Your task to perform on an android device: turn notification dots on Image 0: 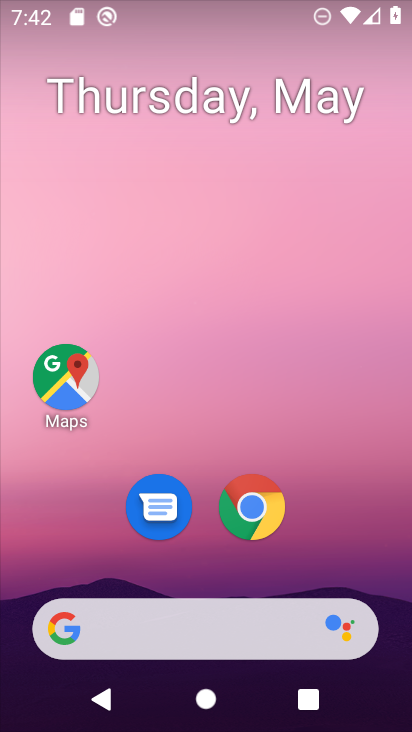
Step 0: drag from (351, 533) to (317, 104)
Your task to perform on an android device: turn notification dots on Image 1: 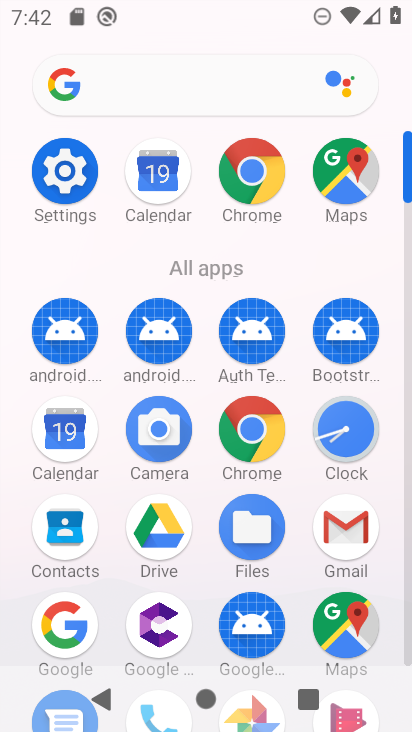
Step 1: click (69, 160)
Your task to perform on an android device: turn notification dots on Image 2: 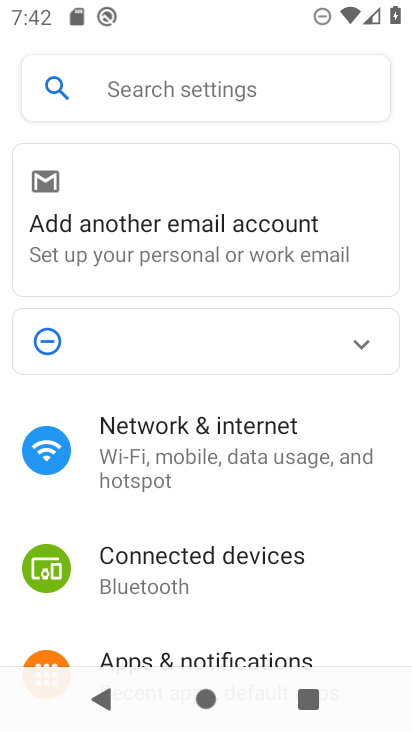
Step 2: drag from (255, 587) to (233, 361)
Your task to perform on an android device: turn notification dots on Image 3: 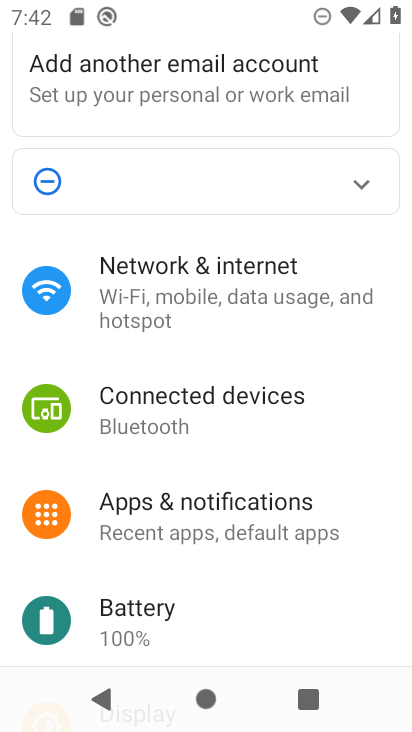
Step 3: click (259, 527)
Your task to perform on an android device: turn notification dots on Image 4: 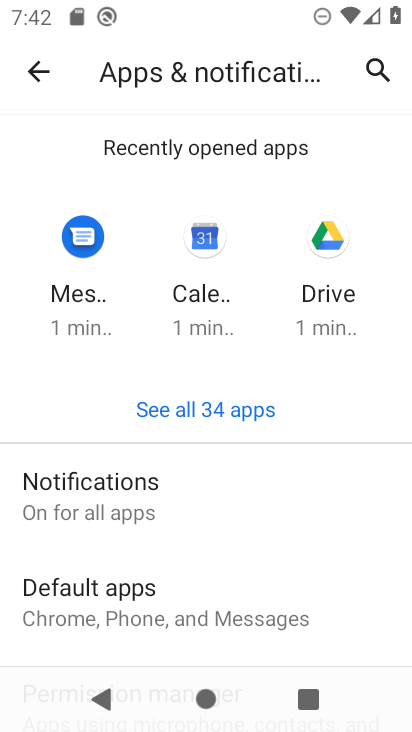
Step 4: click (80, 474)
Your task to perform on an android device: turn notification dots on Image 5: 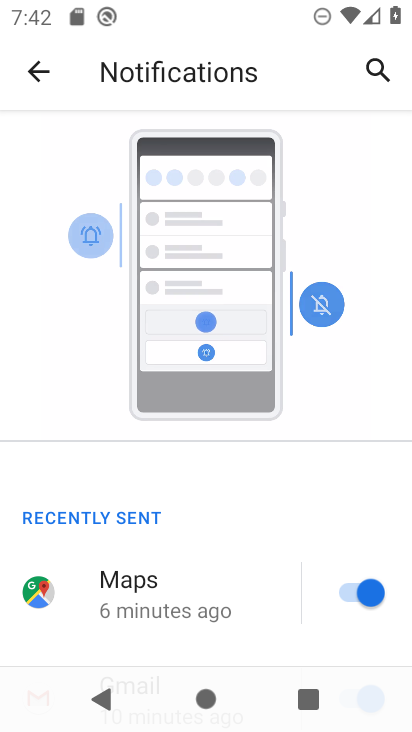
Step 5: drag from (158, 612) to (168, 211)
Your task to perform on an android device: turn notification dots on Image 6: 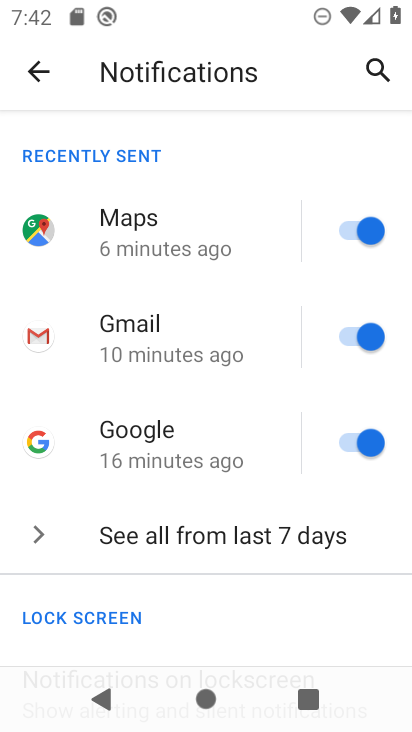
Step 6: drag from (225, 577) to (233, 285)
Your task to perform on an android device: turn notification dots on Image 7: 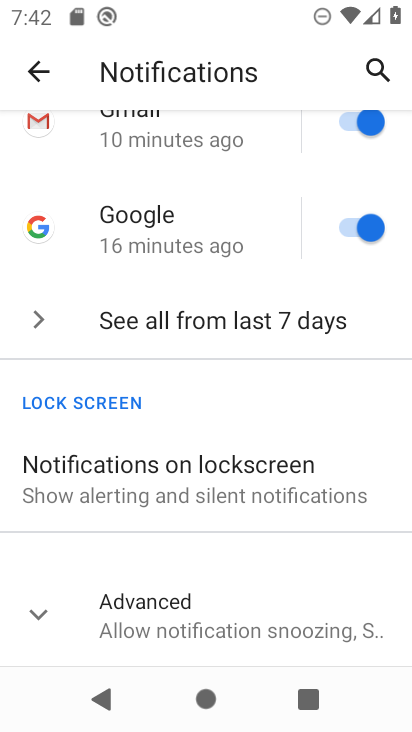
Step 7: click (175, 609)
Your task to perform on an android device: turn notification dots on Image 8: 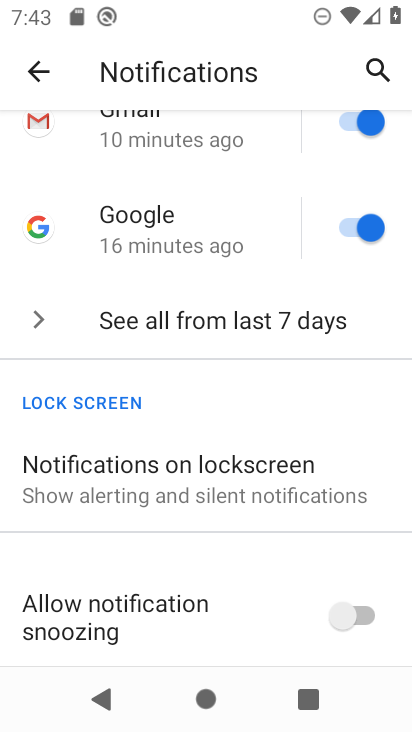
Step 8: drag from (196, 635) to (199, 257)
Your task to perform on an android device: turn notification dots on Image 9: 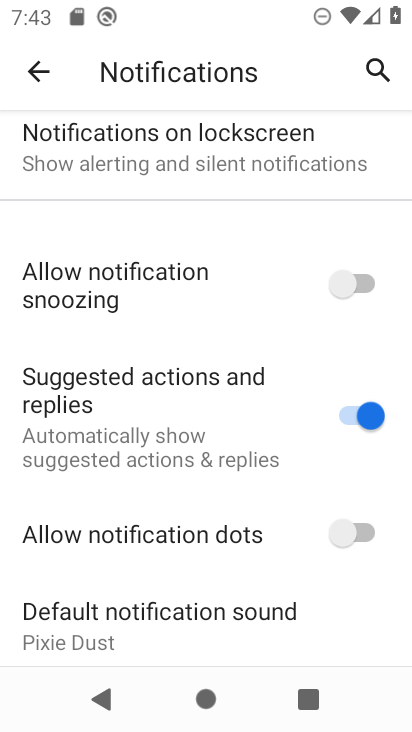
Step 9: click (377, 545)
Your task to perform on an android device: turn notification dots on Image 10: 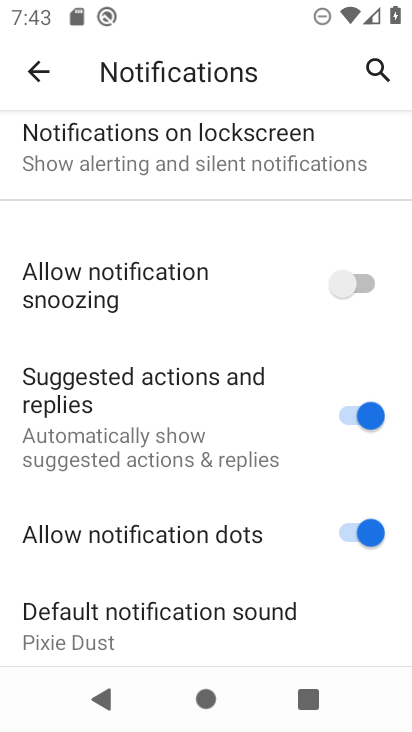
Step 10: task complete